Your task to perform on an android device: Go to display settings Image 0: 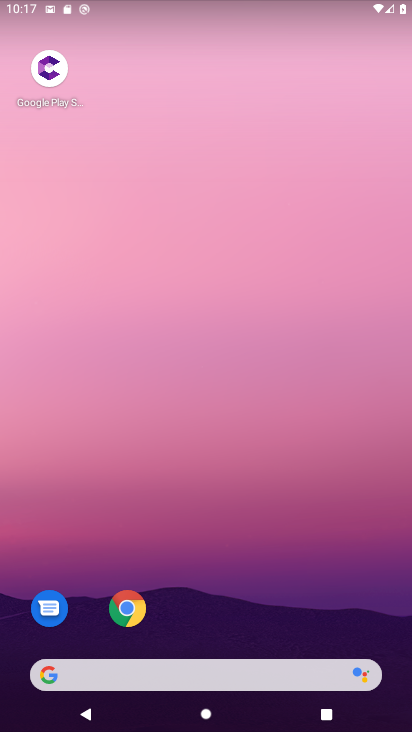
Step 0: drag from (252, 554) to (235, 160)
Your task to perform on an android device: Go to display settings Image 1: 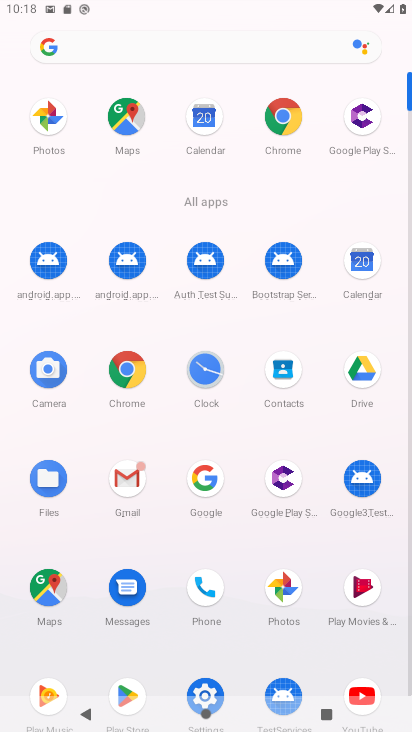
Step 1: click (210, 680)
Your task to perform on an android device: Go to display settings Image 2: 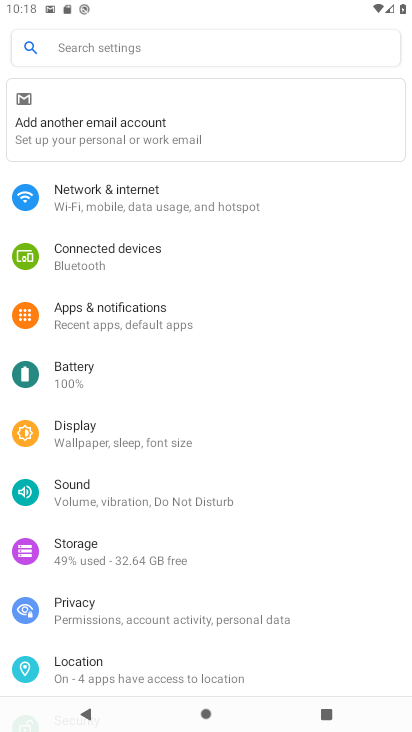
Step 2: click (100, 434)
Your task to perform on an android device: Go to display settings Image 3: 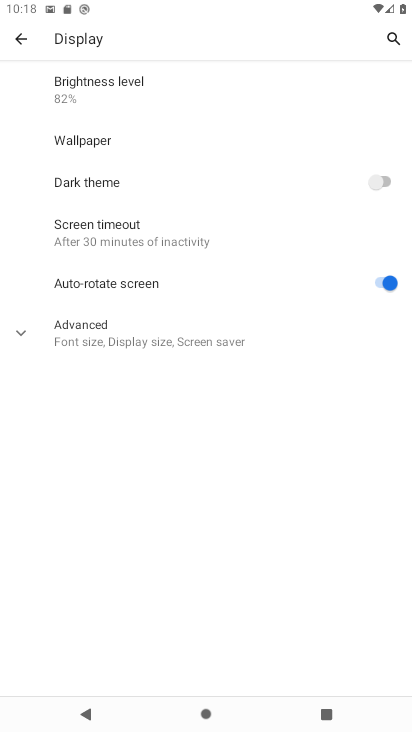
Step 3: task complete